Your task to perform on an android device: turn pop-ups off in chrome Image 0: 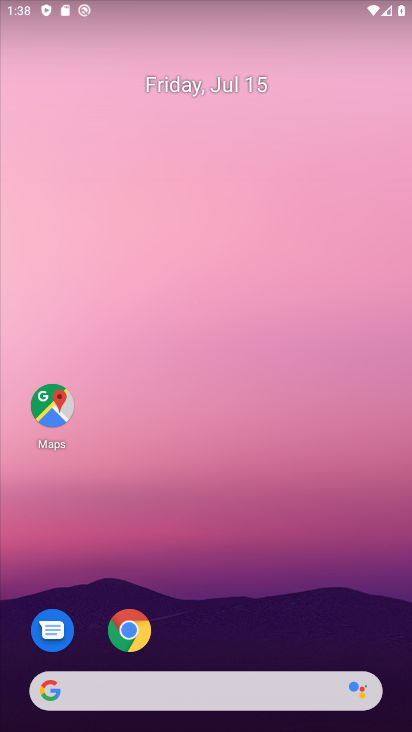
Step 0: click (135, 630)
Your task to perform on an android device: turn pop-ups off in chrome Image 1: 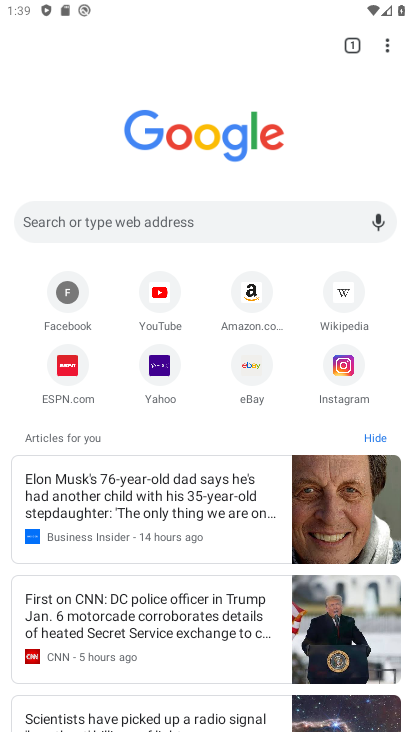
Step 1: click (384, 46)
Your task to perform on an android device: turn pop-ups off in chrome Image 2: 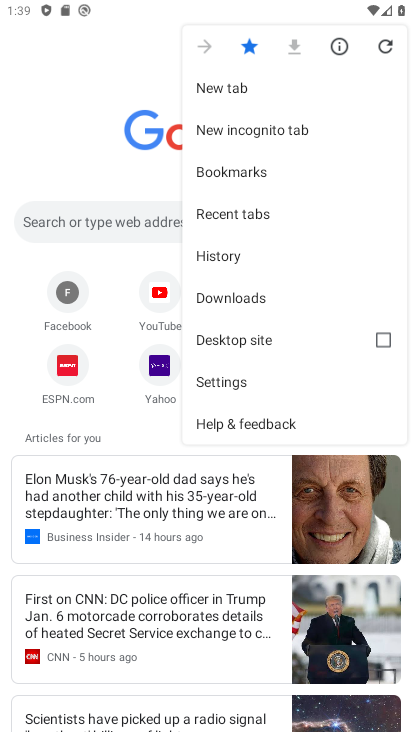
Step 2: click (236, 384)
Your task to perform on an android device: turn pop-ups off in chrome Image 3: 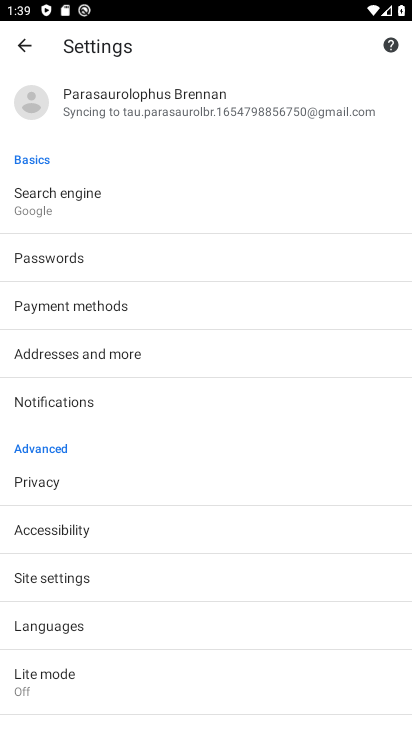
Step 3: click (55, 577)
Your task to perform on an android device: turn pop-ups off in chrome Image 4: 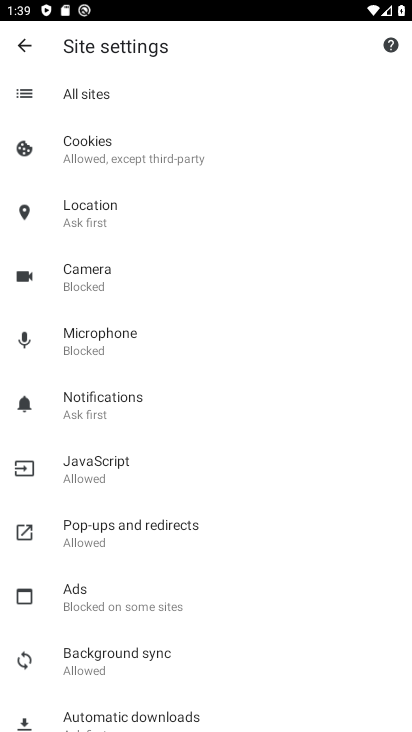
Step 4: click (113, 525)
Your task to perform on an android device: turn pop-ups off in chrome Image 5: 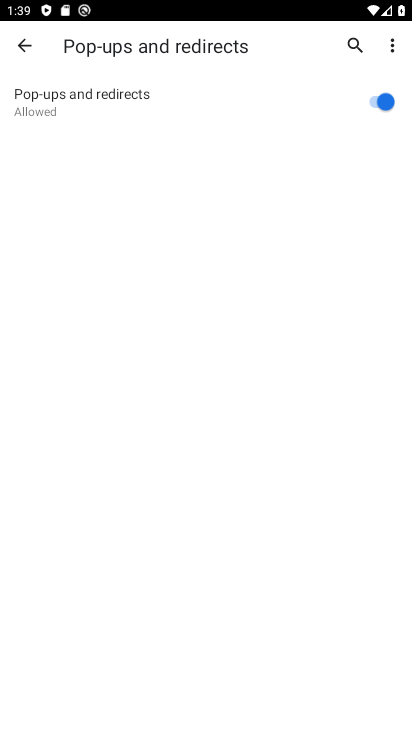
Step 5: click (385, 100)
Your task to perform on an android device: turn pop-ups off in chrome Image 6: 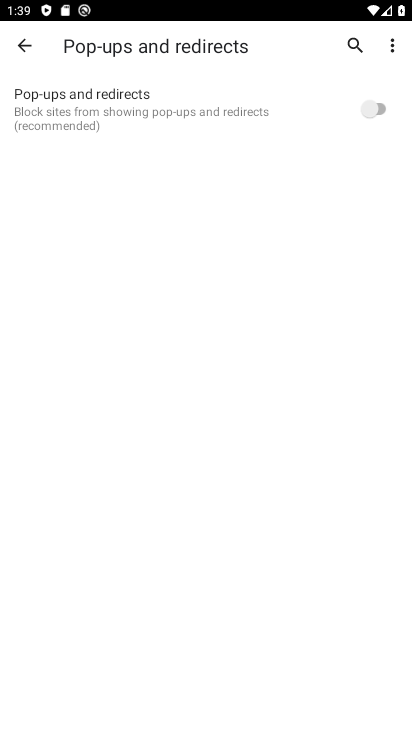
Step 6: task complete